Your task to perform on an android device: Open Youtube and go to "Your channel" Image 0: 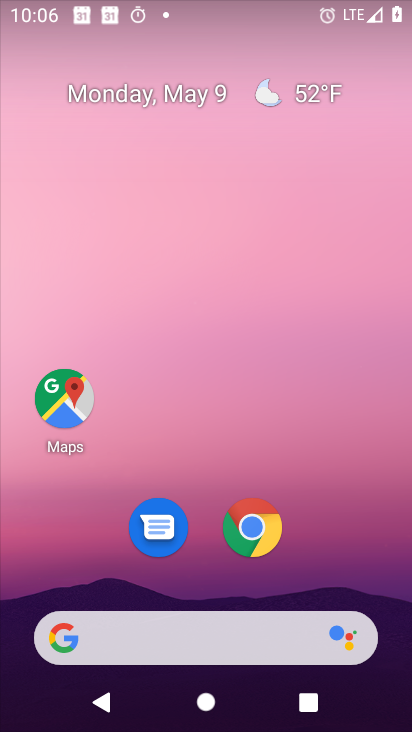
Step 0: drag from (207, 570) to (214, 41)
Your task to perform on an android device: Open Youtube and go to "Your channel" Image 1: 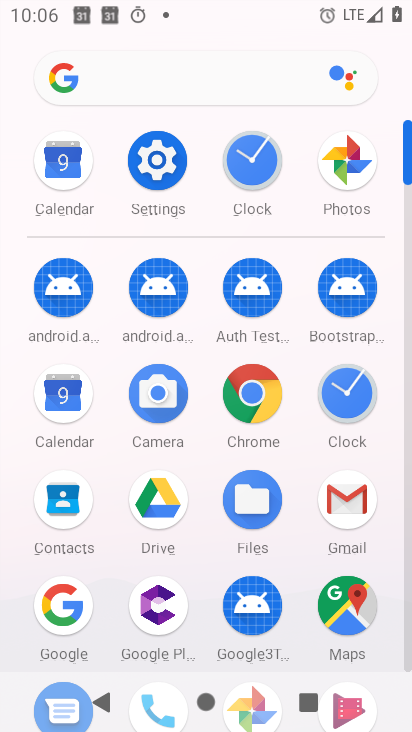
Step 1: drag from (201, 587) to (216, 281)
Your task to perform on an android device: Open Youtube and go to "Your channel" Image 2: 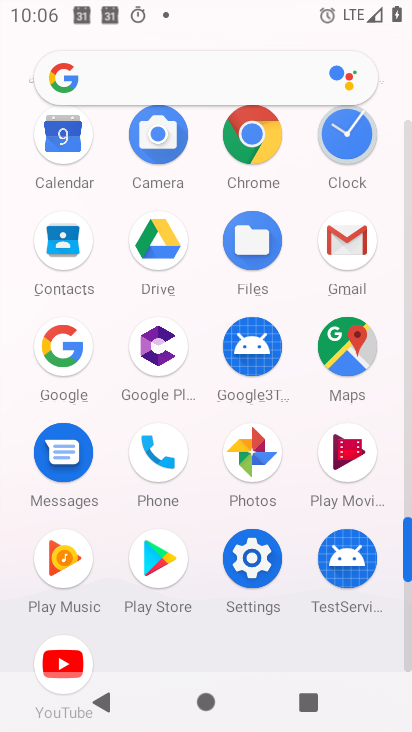
Step 2: click (62, 653)
Your task to perform on an android device: Open Youtube and go to "Your channel" Image 3: 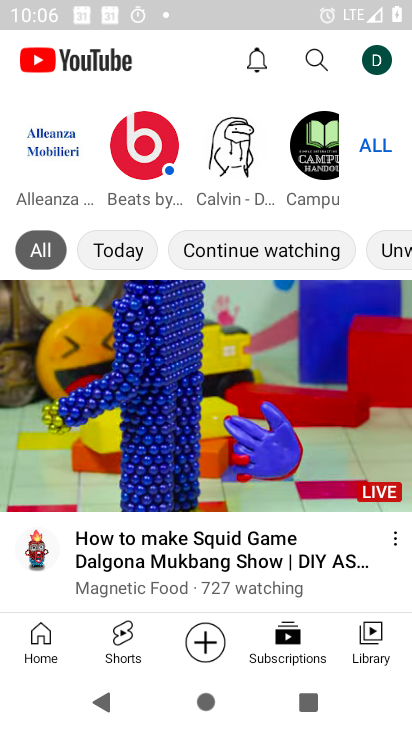
Step 3: task complete